Your task to perform on an android device: Search for Mexican restaurants on Maps Image 0: 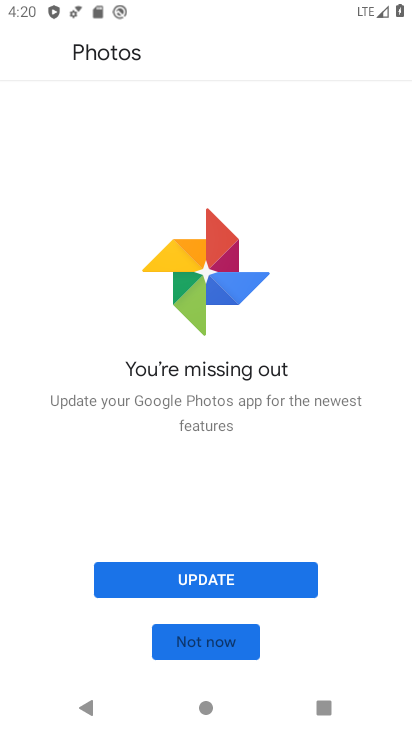
Step 0: press back button
Your task to perform on an android device: Search for Mexican restaurants on Maps Image 1: 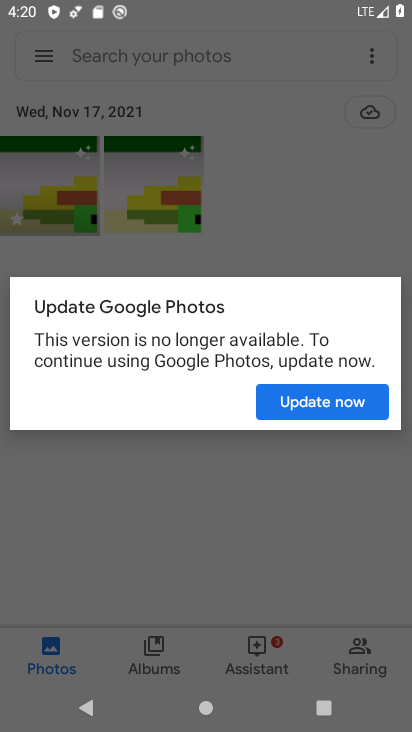
Step 1: press home button
Your task to perform on an android device: Search for Mexican restaurants on Maps Image 2: 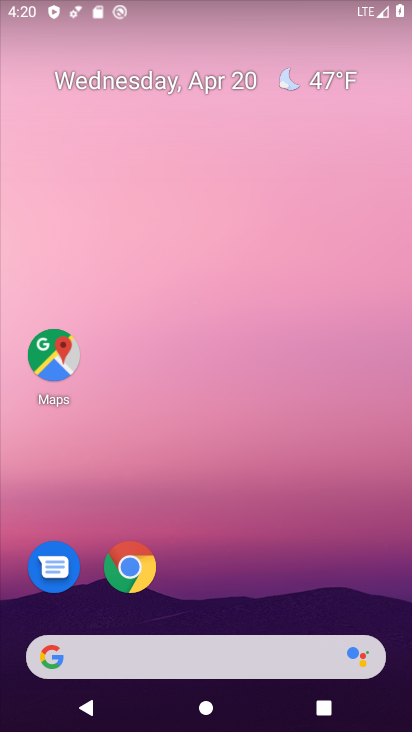
Step 2: drag from (217, 347) to (240, 51)
Your task to perform on an android device: Search for Mexican restaurants on Maps Image 3: 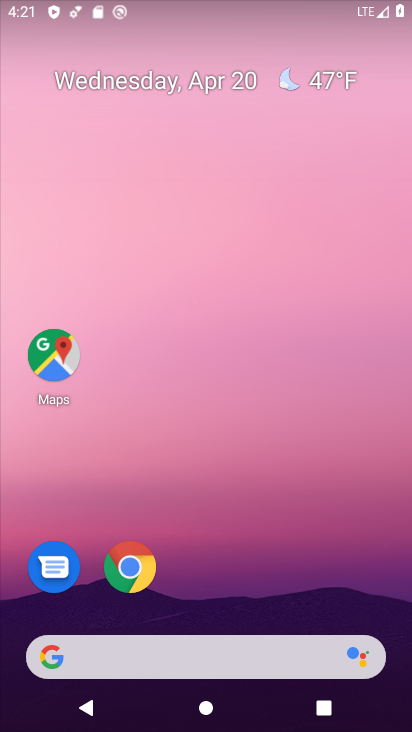
Step 3: drag from (266, 539) to (204, 15)
Your task to perform on an android device: Search for Mexican restaurants on Maps Image 4: 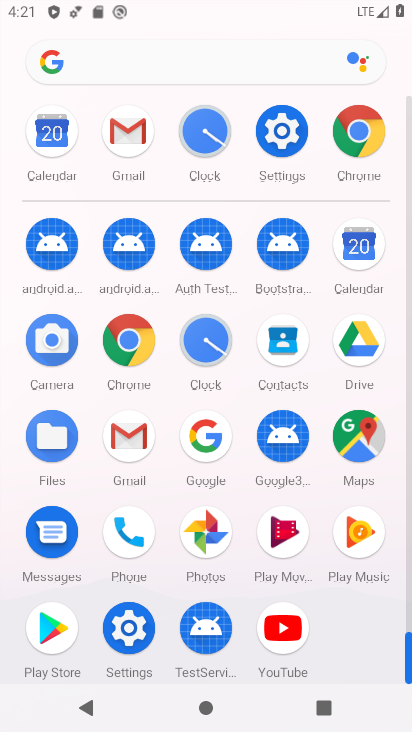
Step 4: click (353, 432)
Your task to perform on an android device: Search for Mexican restaurants on Maps Image 5: 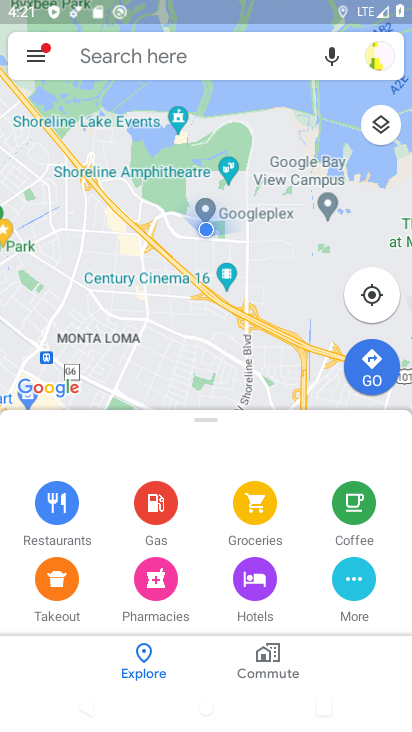
Step 5: click (166, 43)
Your task to perform on an android device: Search for Mexican restaurants on Maps Image 6: 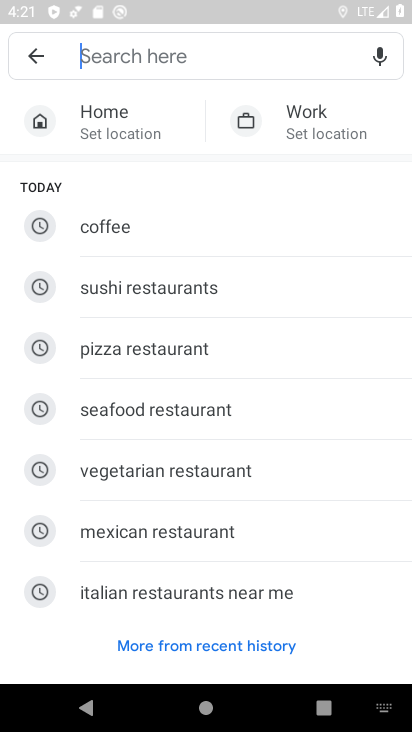
Step 6: click (181, 523)
Your task to perform on an android device: Search for Mexican restaurants on Maps Image 7: 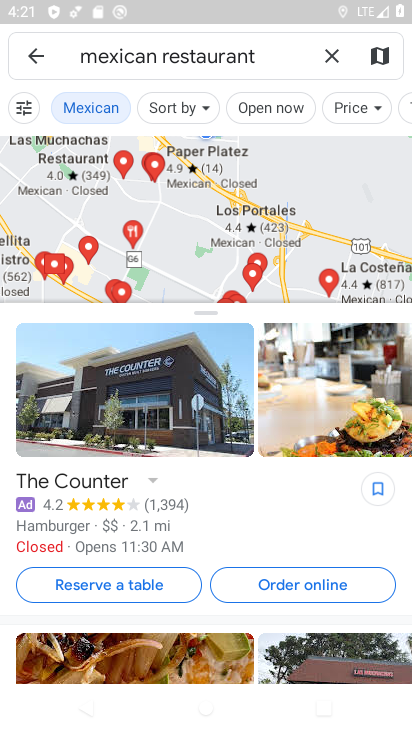
Step 7: task complete